Your task to perform on an android device: Do I have any events this weekend? Image 0: 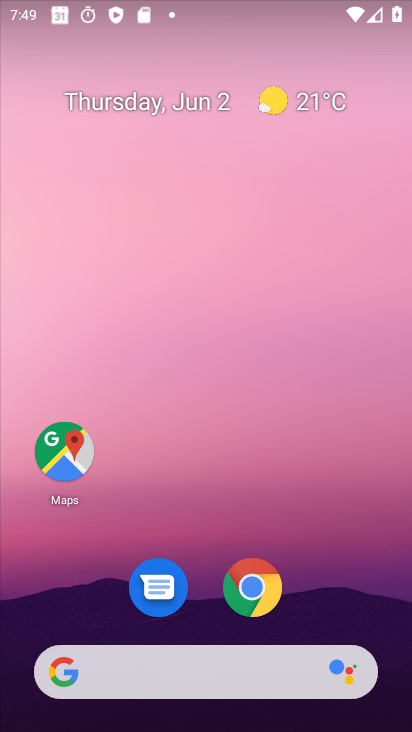
Step 0: drag from (349, 578) to (291, 9)
Your task to perform on an android device: Do I have any events this weekend? Image 1: 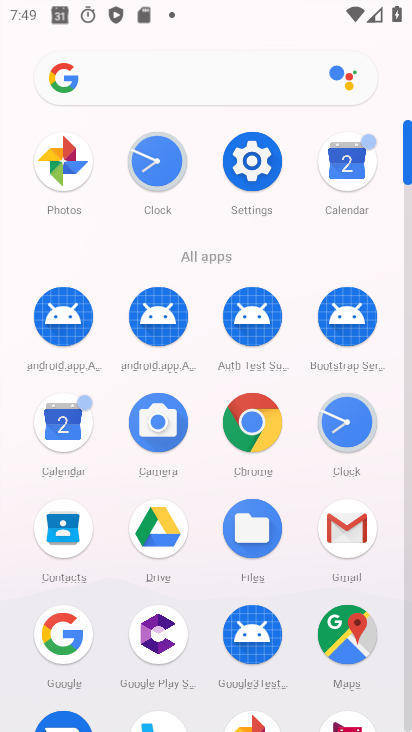
Step 1: click (342, 166)
Your task to perform on an android device: Do I have any events this weekend? Image 2: 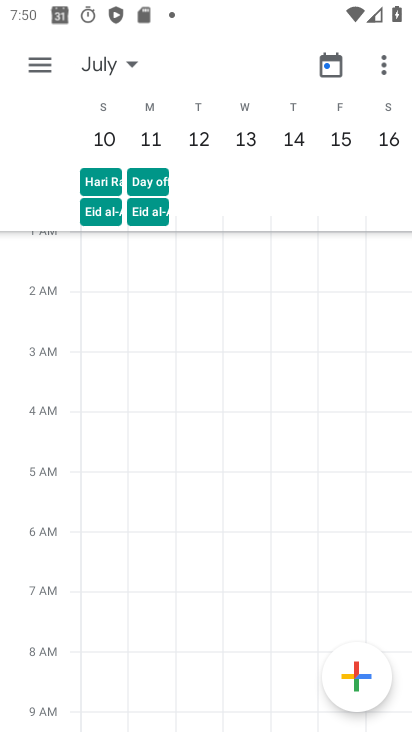
Step 2: click (328, 63)
Your task to perform on an android device: Do I have any events this weekend? Image 3: 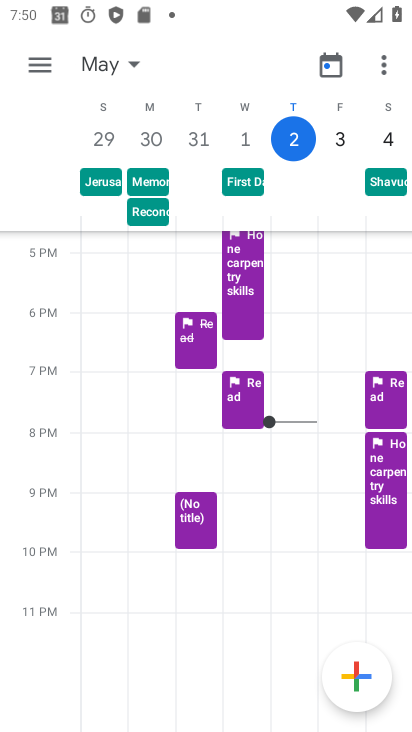
Step 3: click (44, 65)
Your task to perform on an android device: Do I have any events this weekend? Image 4: 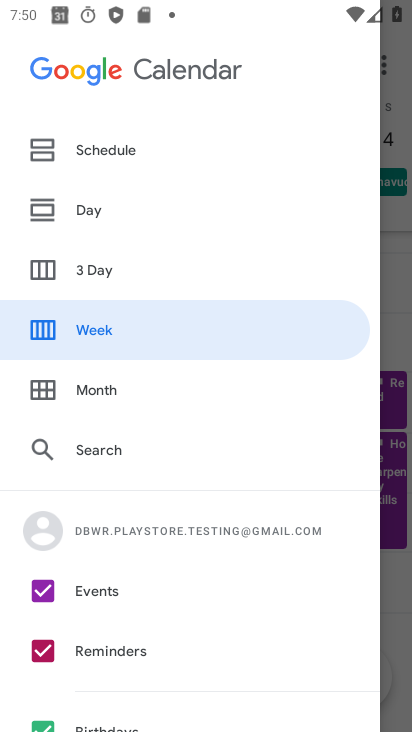
Step 4: click (37, 648)
Your task to perform on an android device: Do I have any events this weekend? Image 5: 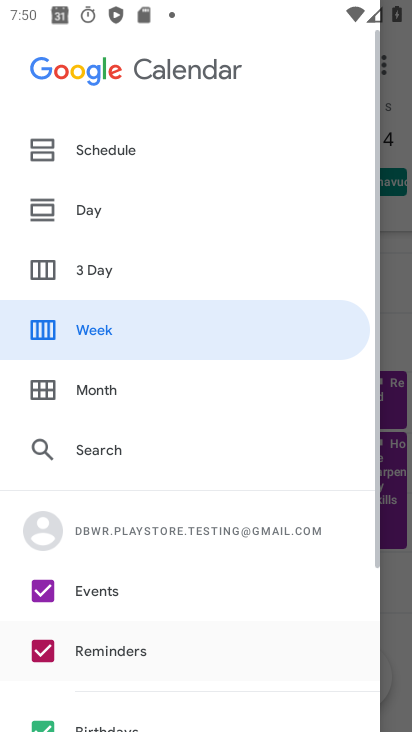
Step 5: drag from (143, 629) to (153, 381)
Your task to perform on an android device: Do I have any events this weekend? Image 6: 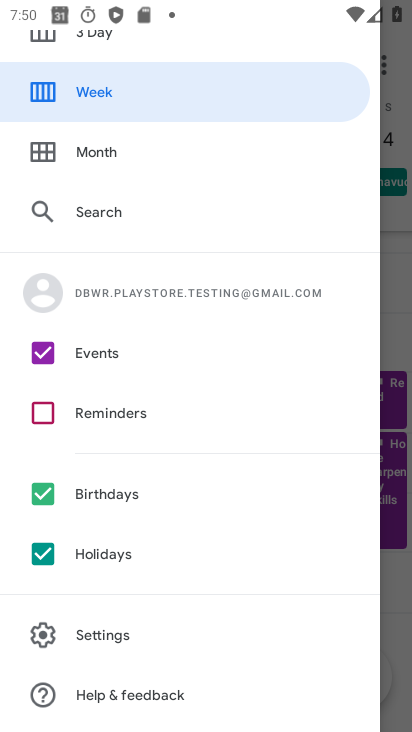
Step 6: click (39, 499)
Your task to perform on an android device: Do I have any events this weekend? Image 7: 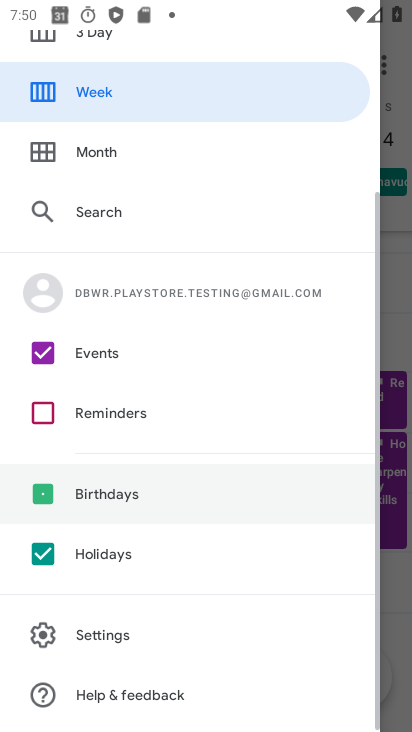
Step 7: click (47, 561)
Your task to perform on an android device: Do I have any events this weekend? Image 8: 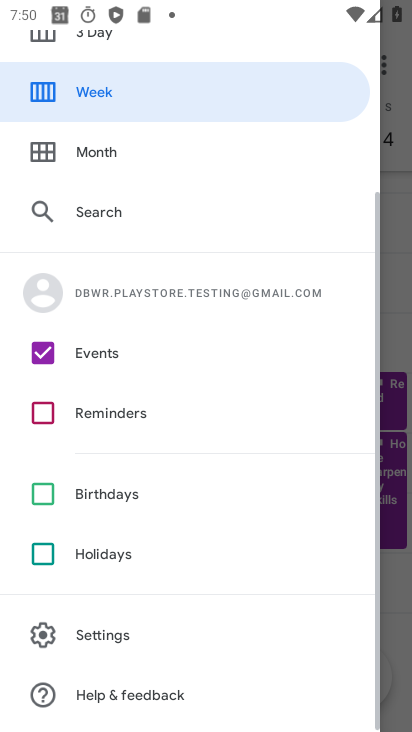
Step 8: drag from (161, 256) to (160, 519)
Your task to perform on an android device: Do I have any events this weekend? Image 9: 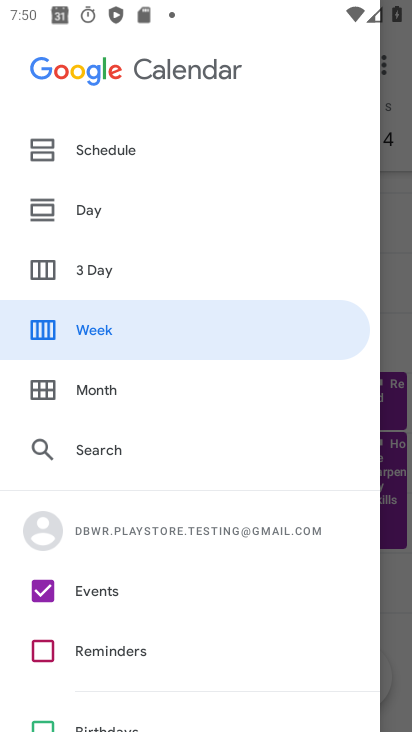
Step 9: click (42, 215)
Your task to perform on an android device: Do I have any events this weekend? Image 10: 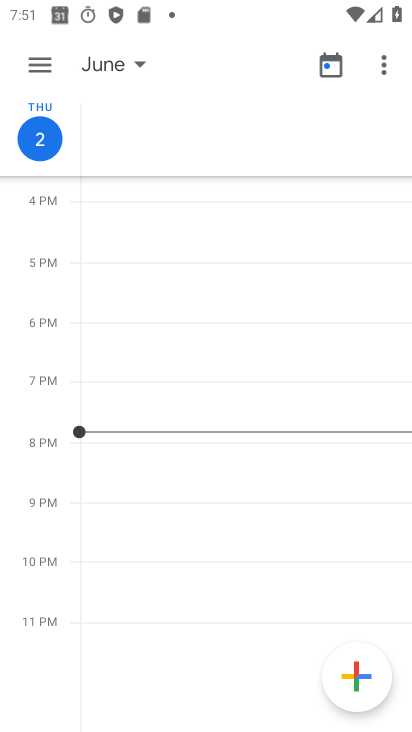
Step 10: click (138, 67)
Your task to perform on an android device: Do I have any events this weekend? Image 11: 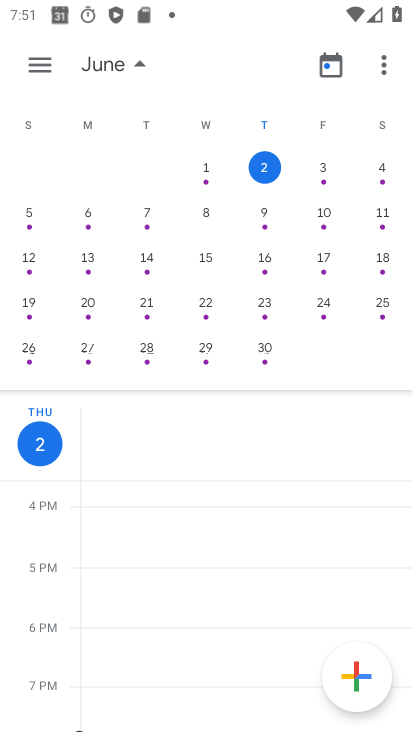
Step 11: click (380, 166)
Your task to perform on an android device: Do I have any events this weekend? Image 12: 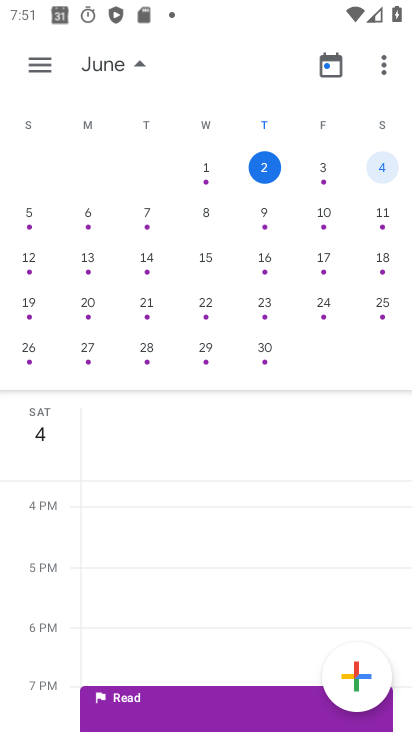
Step 12: task complete